Your task to perform on an android device: turn off picture-in-picture Image 0: 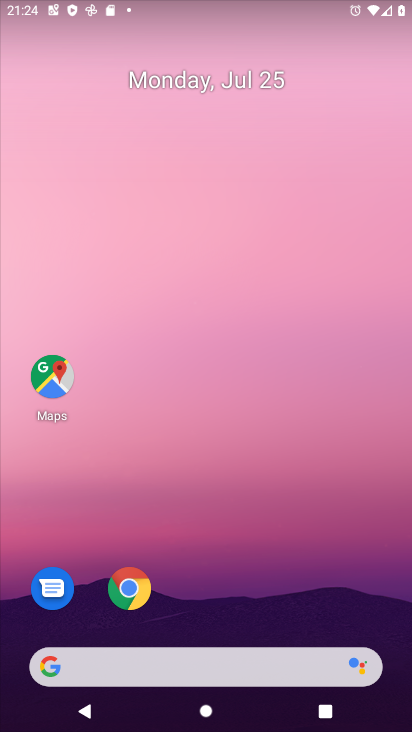
Step 0: click (126, 590)
Your task to perform on an android device: turn off picture-in-picture Image 1: 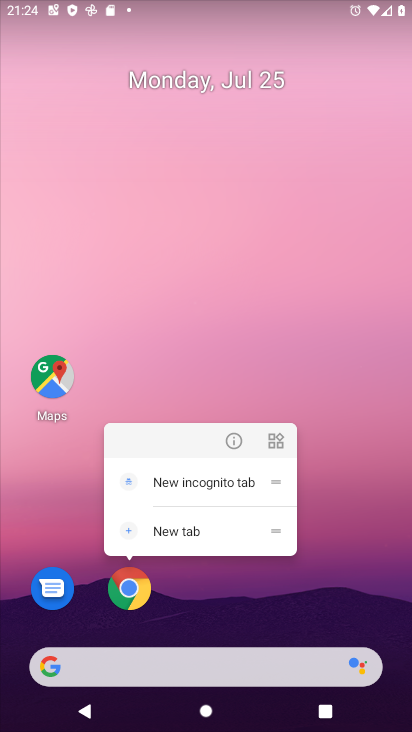
Step 1: click (232, 441)
Your task to perform on an android device: turn off picture-in-picture Image 2: 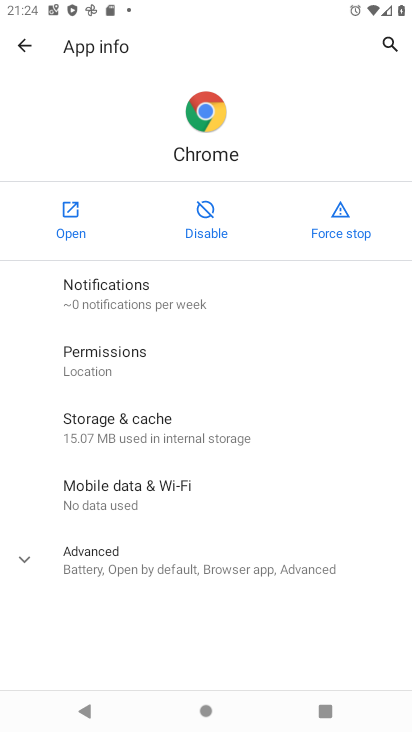
Step 2: click (183, 556)
Your task to perform on an android device: turn off picture-in-picture Image 3: 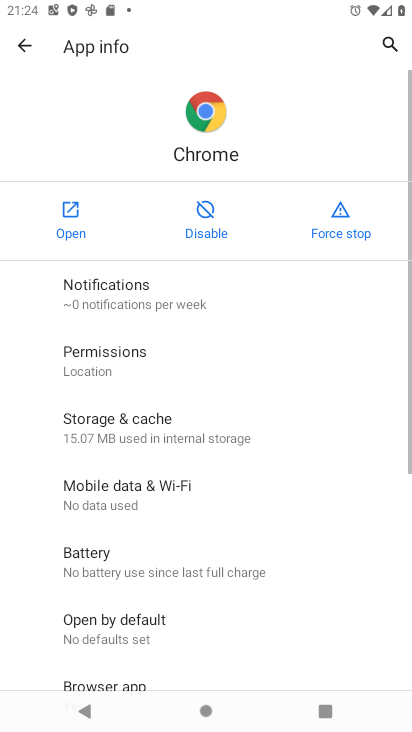
Step 3: drag from (211, 650) to (199, 352)
Your task to perform on an android device: turn off picture-in-picture Image 4: 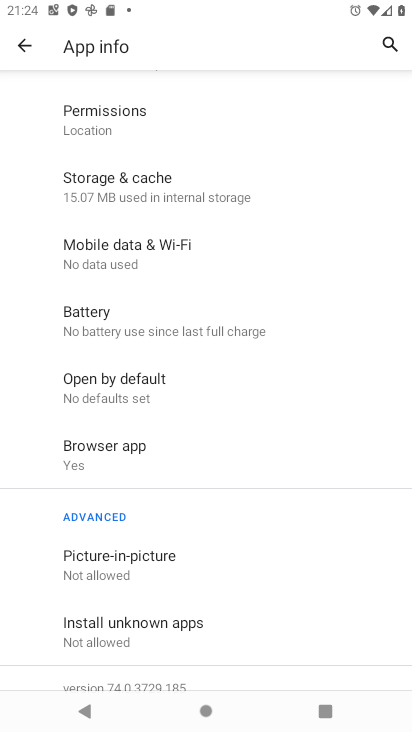
Step 4: click (128, 572)
Your task to perform on an android device: turn off picture-in-picture Image 5: 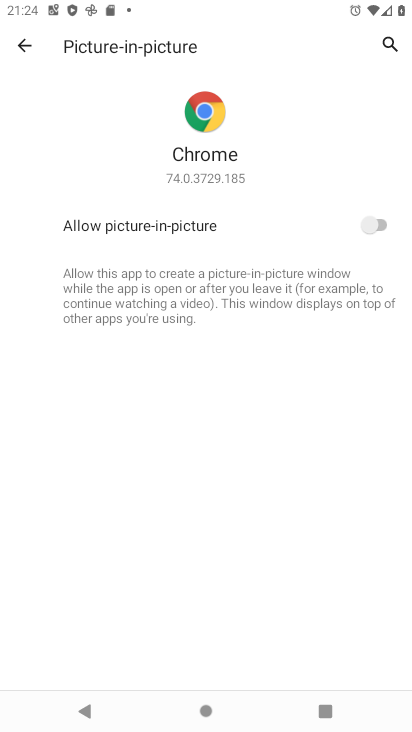
Step 5: task complete